Your task to perform on an android device: open app "Upside-Cash back on gas & food" (install if not already installed) Image 0: 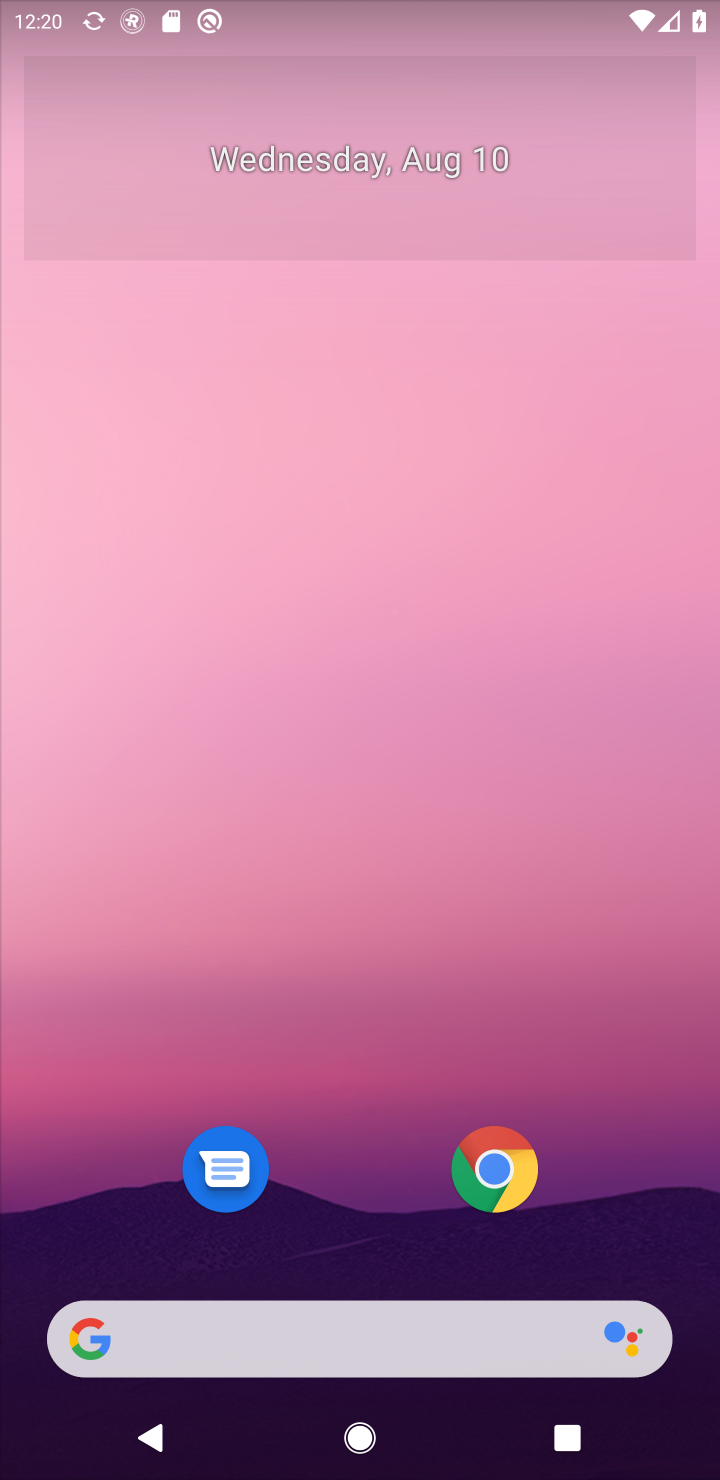
Step 0: drag from (623, 795) to (650, 162)
Your task to perform on an android device: open app "Upside-Cash back on gas & food" (install if not already installed) Image 1: 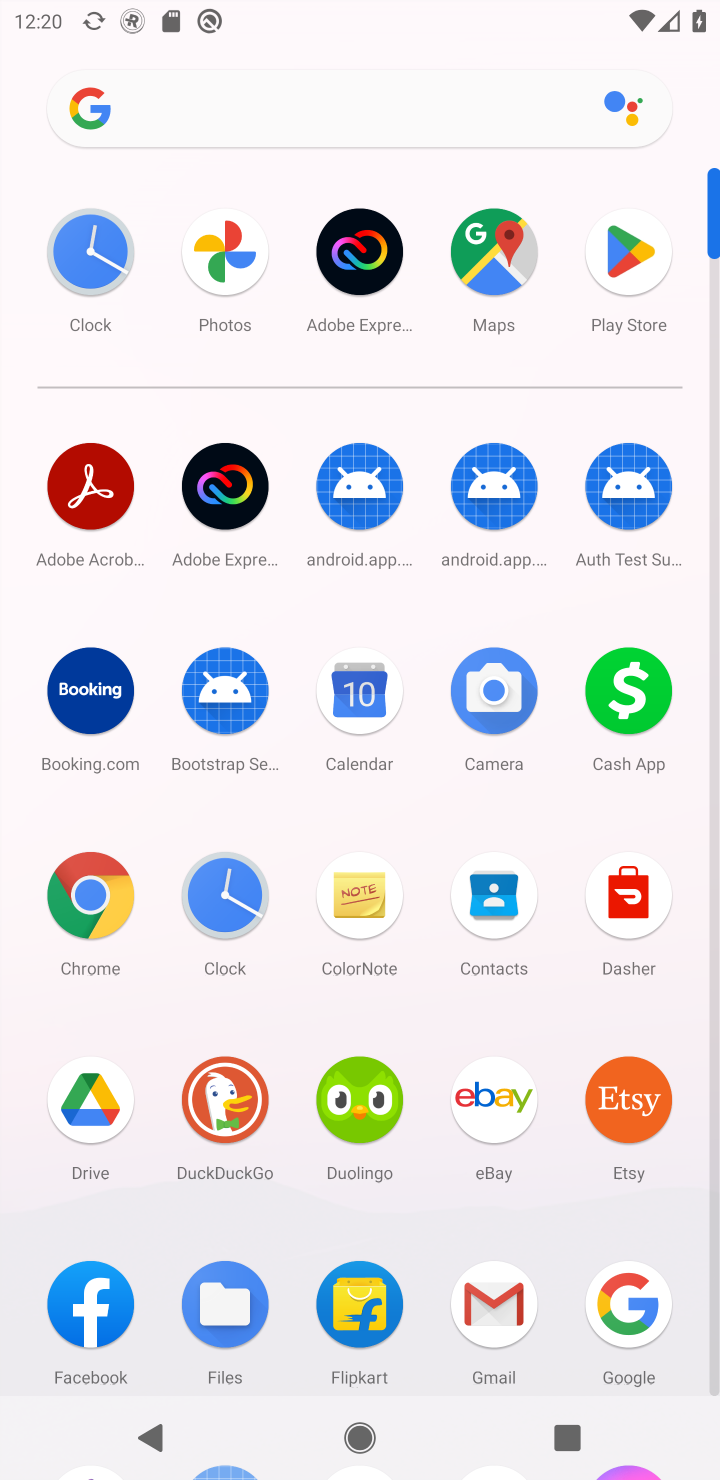
Step 1: click (623, 256)
Your task to perform on an android device: open app "Upside-Cash back on gas & food" (install if not already installed) Image 2: 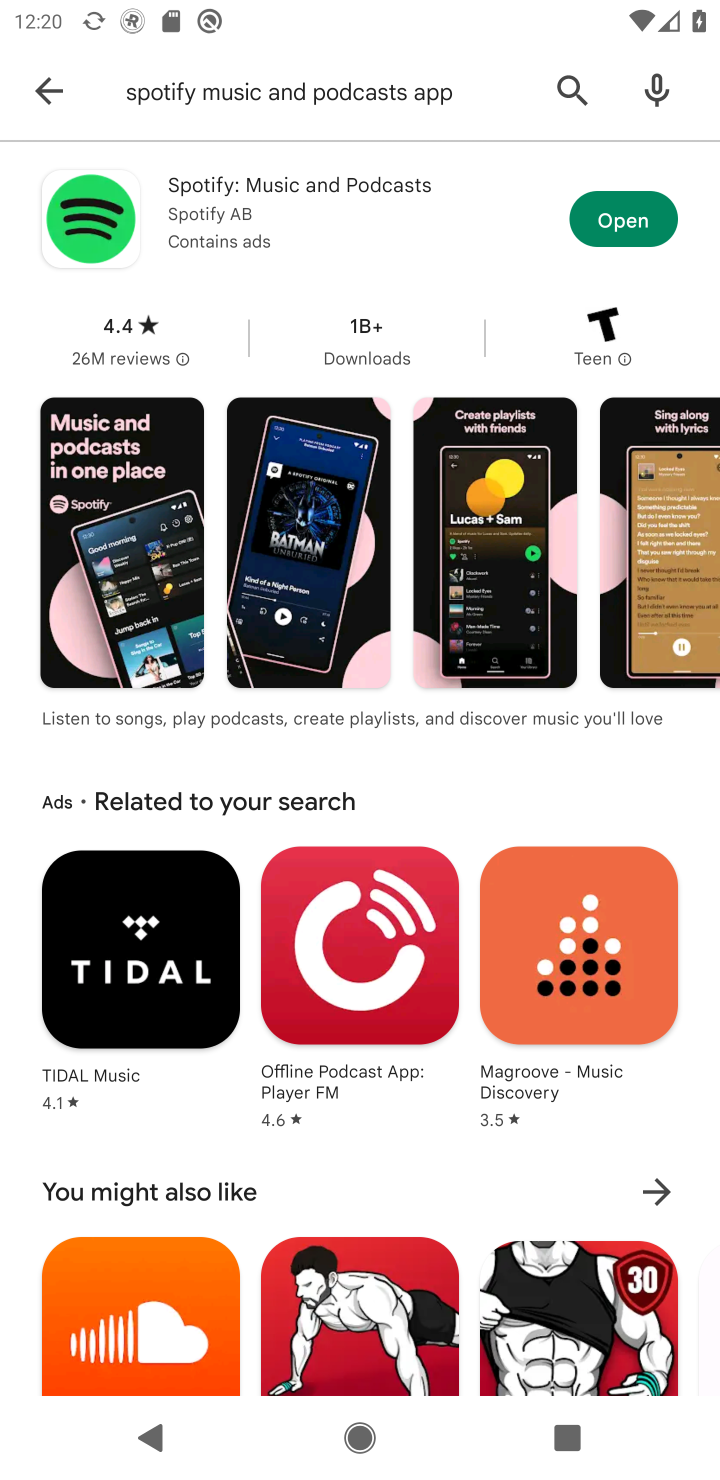
Step 2: click (576, 86)
Your task to perform on an android device: open app "Upside-Cash back on gas & food" (install if not already installed) Image 3: 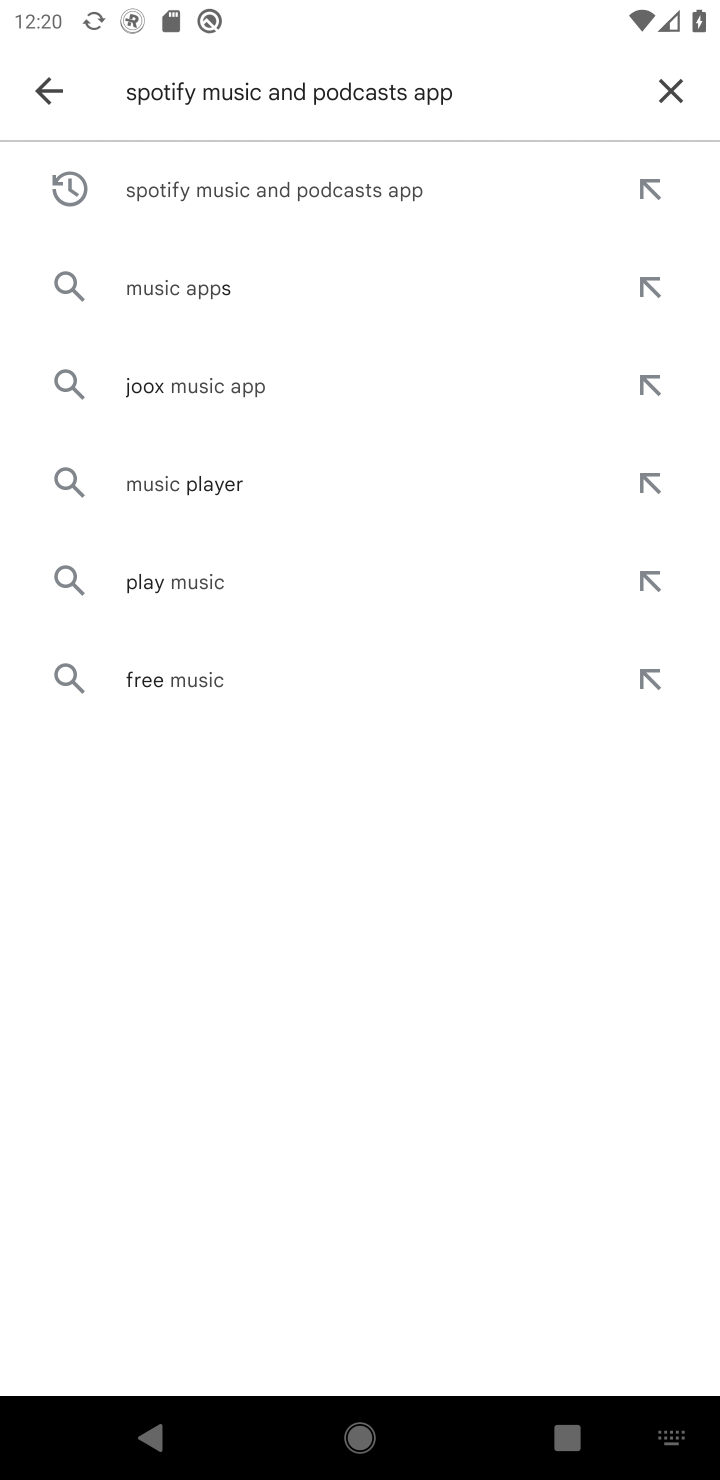
Step 3: click (664, 90)
Your task to perform on an android device: open app "Upside-Cash back on gas & food" (install if not already installed) Image 4: 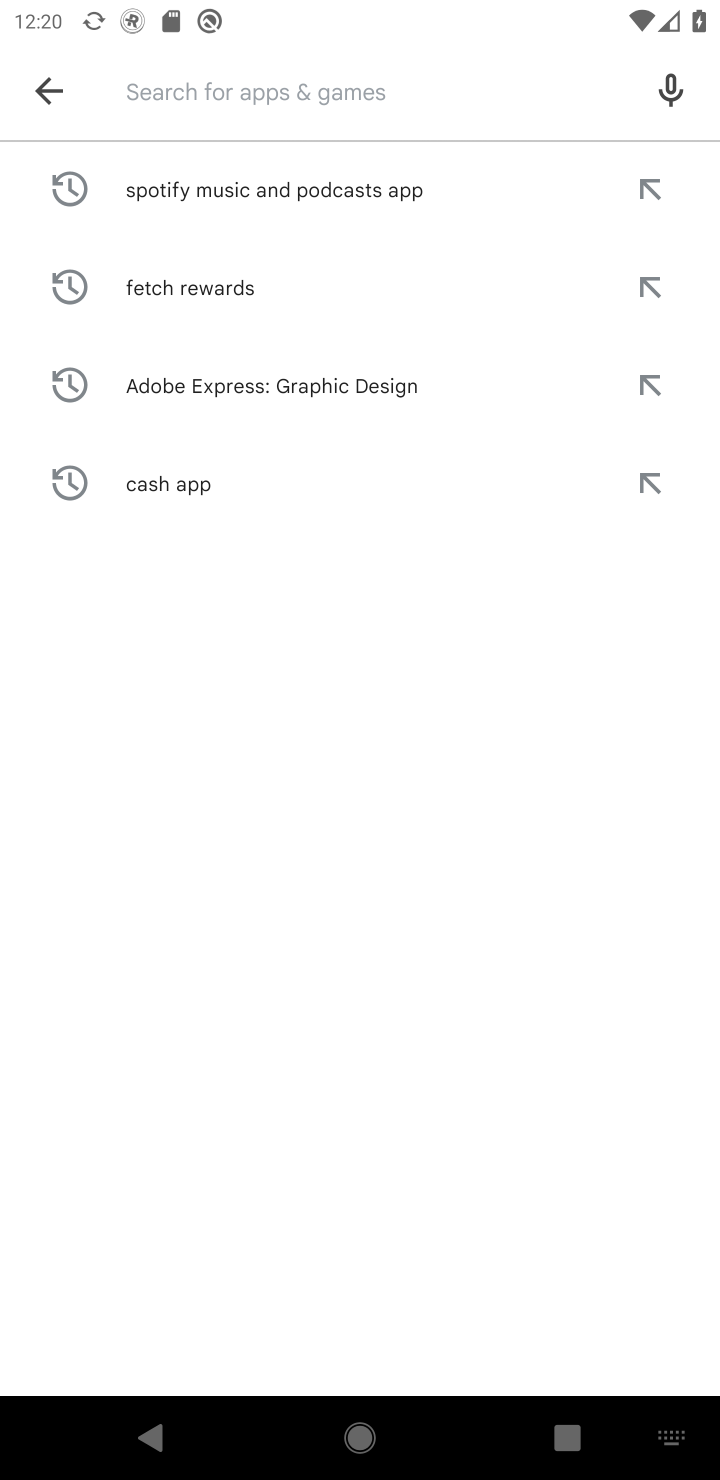
Step 4: click (342, 115)
Your task to perform on an android device: open app "Upside-Cash back on gas & food" (install if not already installed) Image 5: 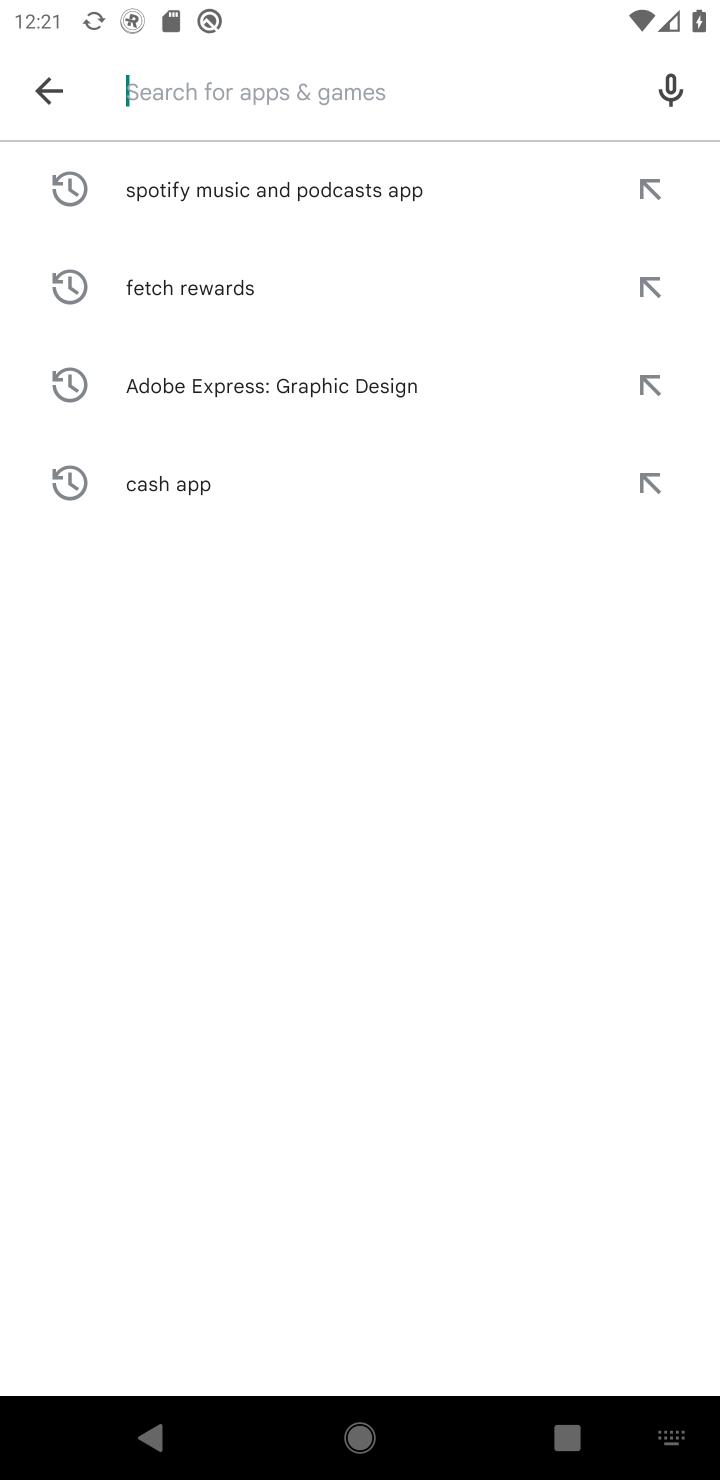
Step 5: press enter
Your task to perform on an android device: open app "Upside-Cash back on gas & food" (install if not already installed) Image 6: 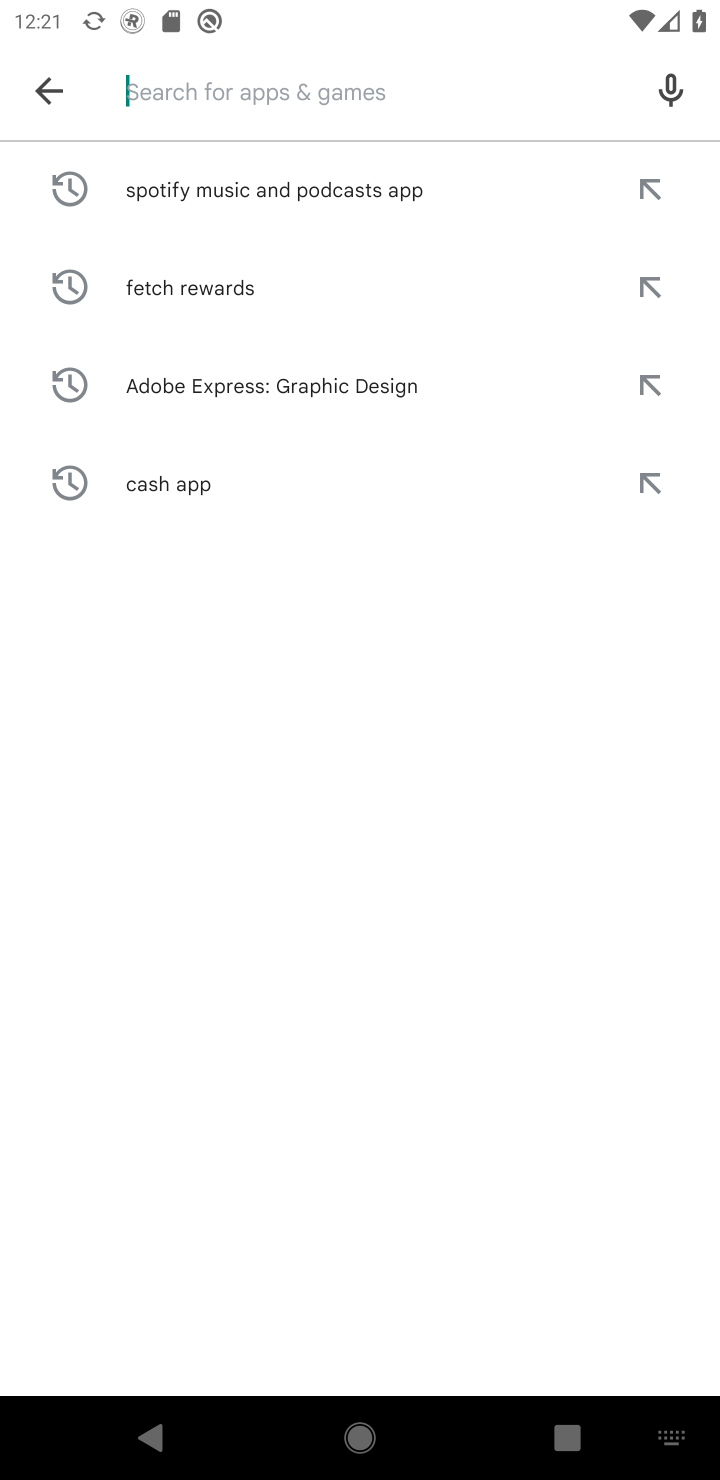
Step 6: type "Upside-Cash back on gas & food"
Your task to perform on an android device: open app "Upside-Cash back on gas & food" (install if not already installed) Image 7: 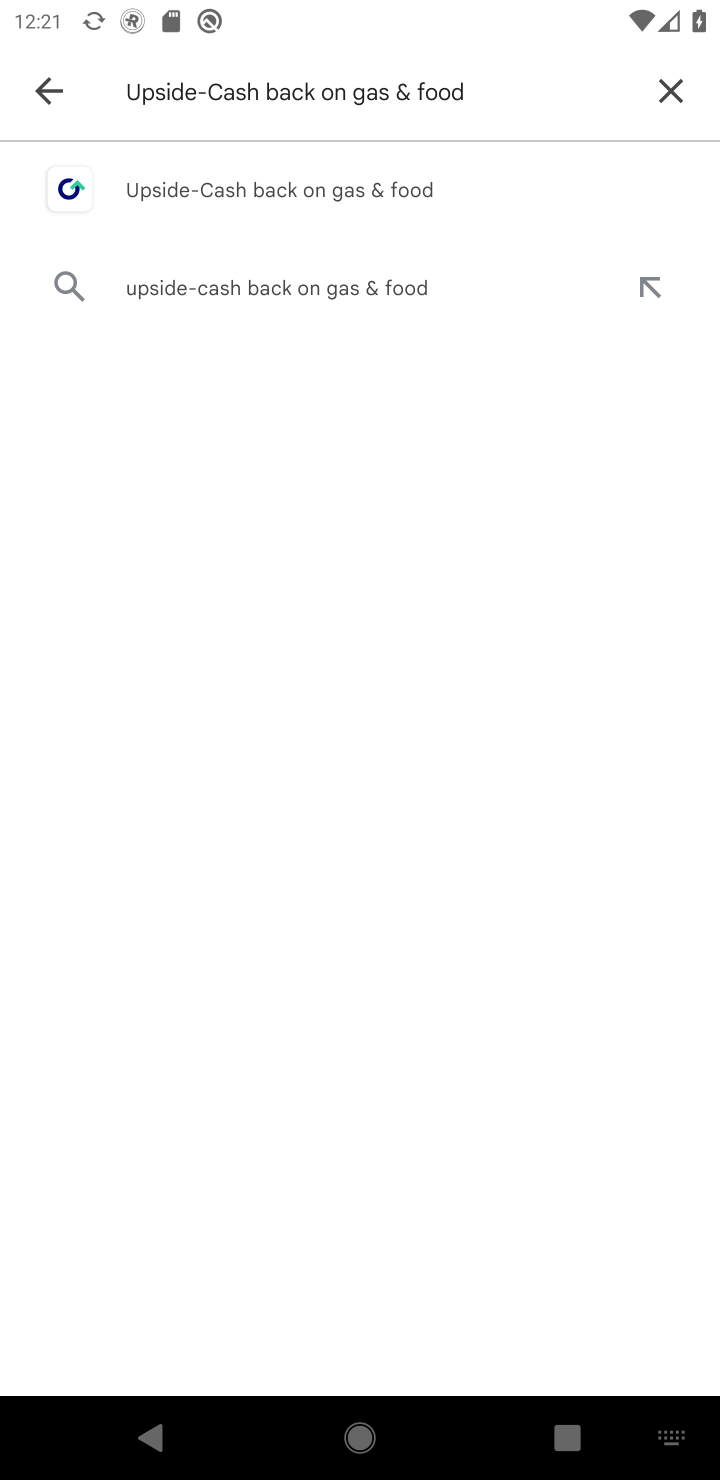
Step 7: click (398, 181)
Your task to perform on an android device: open app "Upside-Cash back on gas & food" (install if not already installed) Image 8: 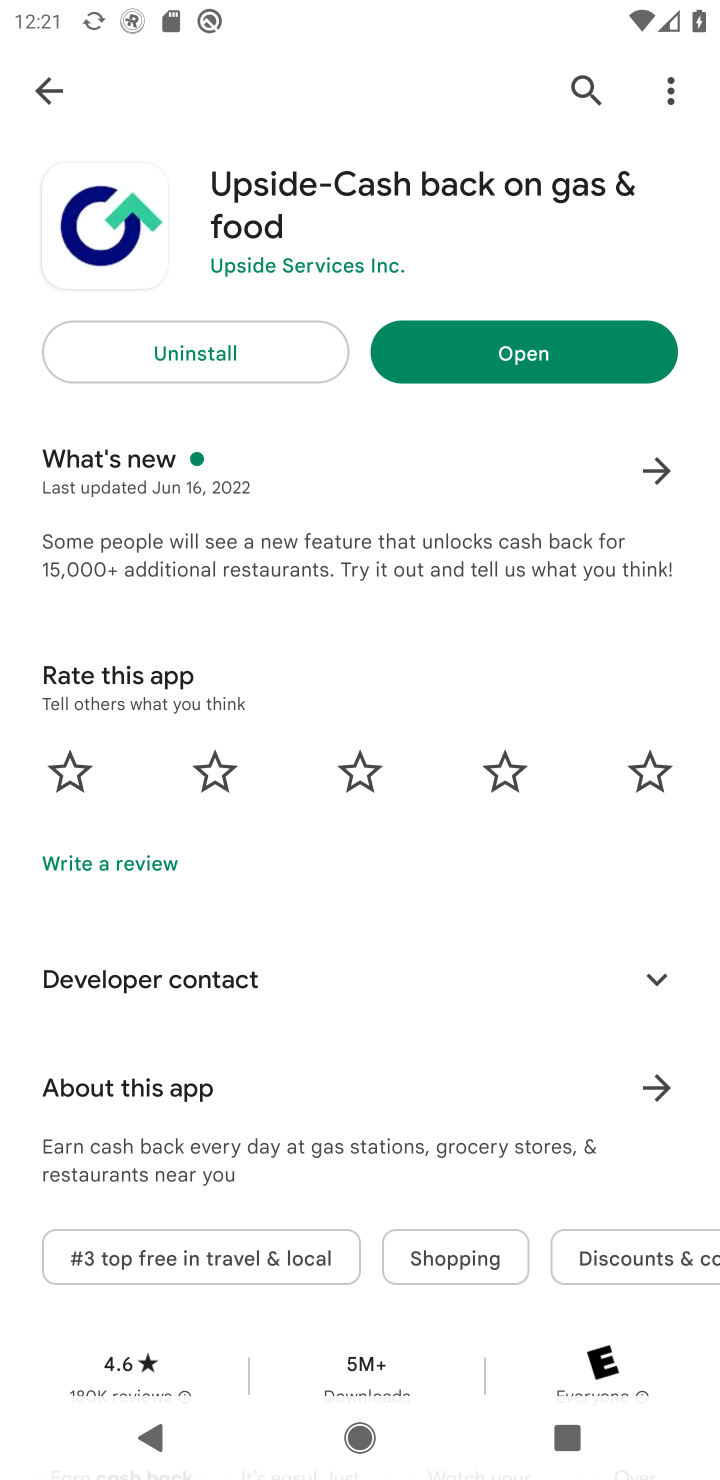
Step 8: click (502, 351)
Your task to perform on an android device: open app "Upside-Cash back on gas & food" (install if not already installed) Image 9: 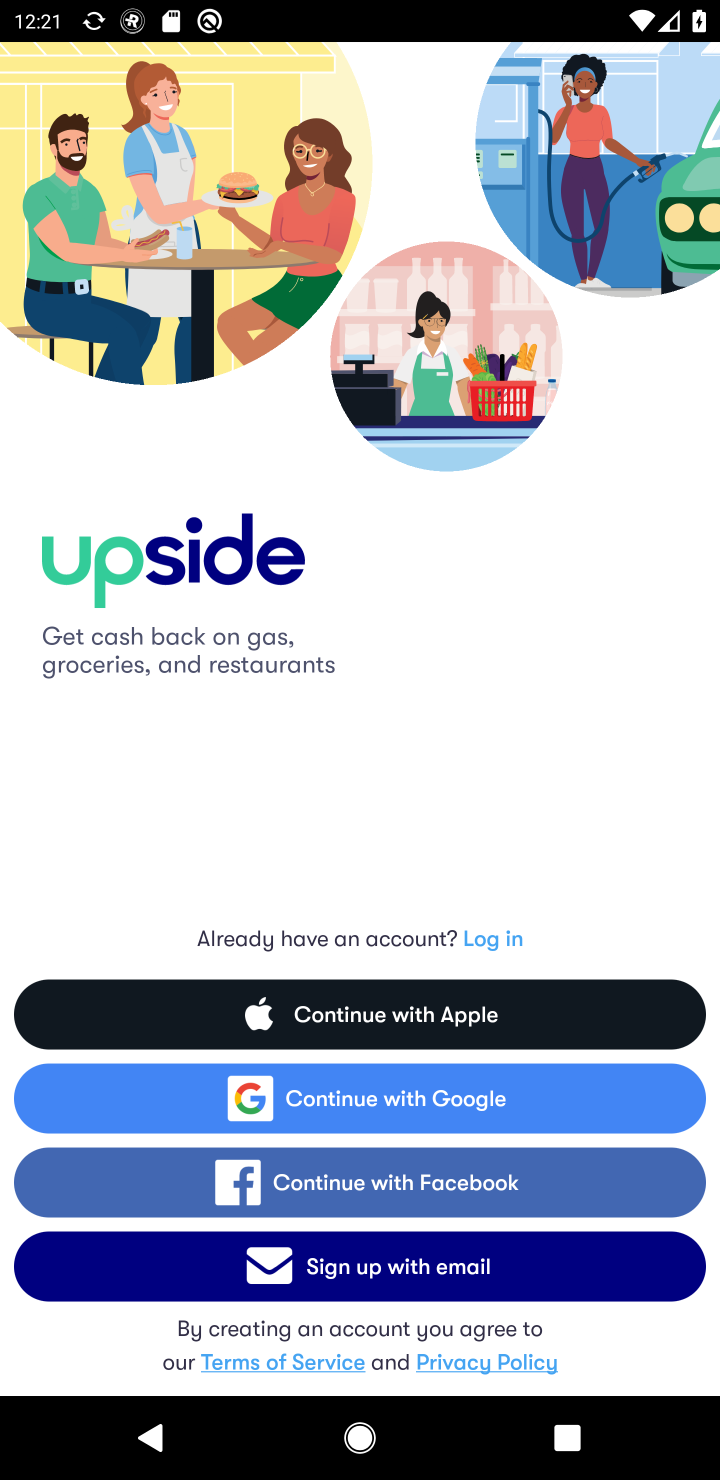
Step 9: task complete